Your task to perform on an android device: Show me popular videos on Youtube Image 0: 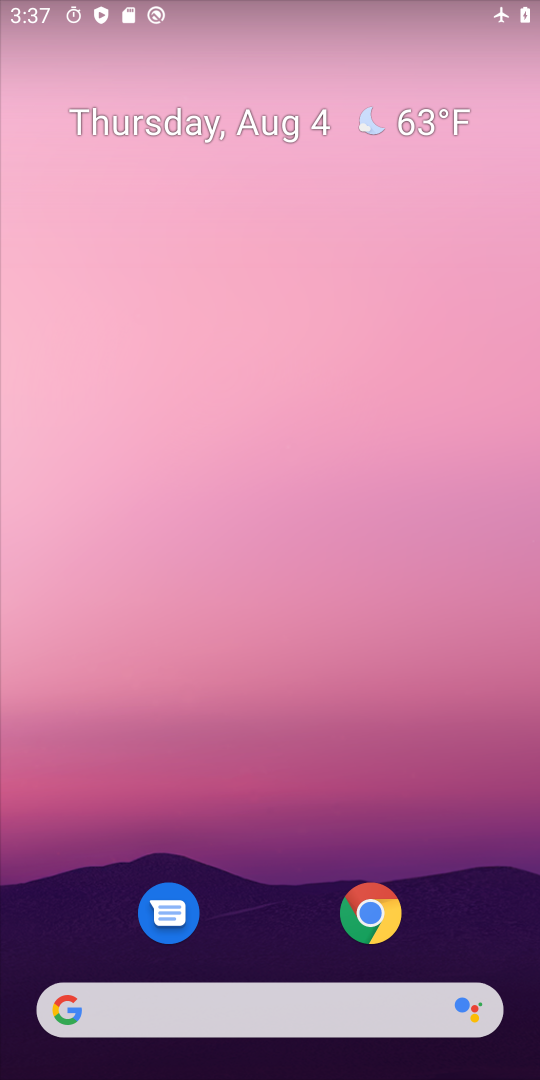
Step 0: drag from (313, 970) to (375, 32)
Your task to perform on an android device: Show me popular videos on Youtube Image 1: 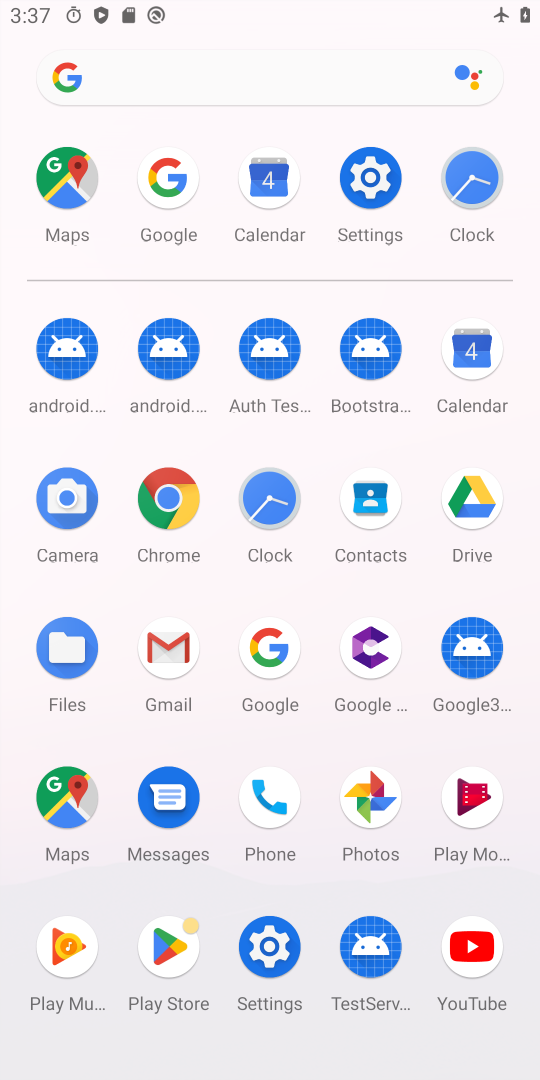
Step 1: click (467, 963)
Your task to perform on an android device: Show me popular videos on Youtube Image 2: 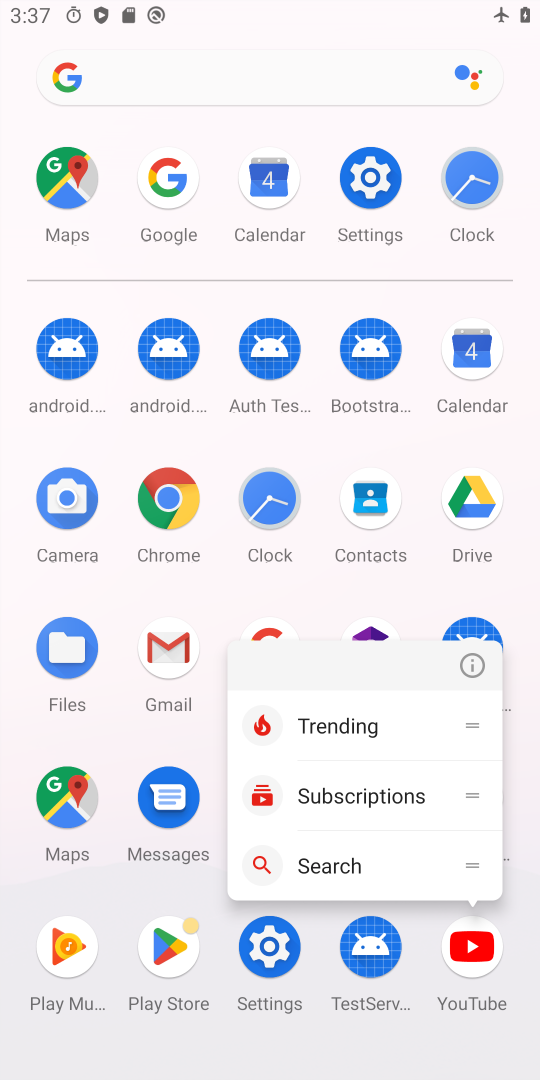
Step 2: click (492, 943)
Your task to perform on an android device: Show me popular videos on Youtube Image 3: 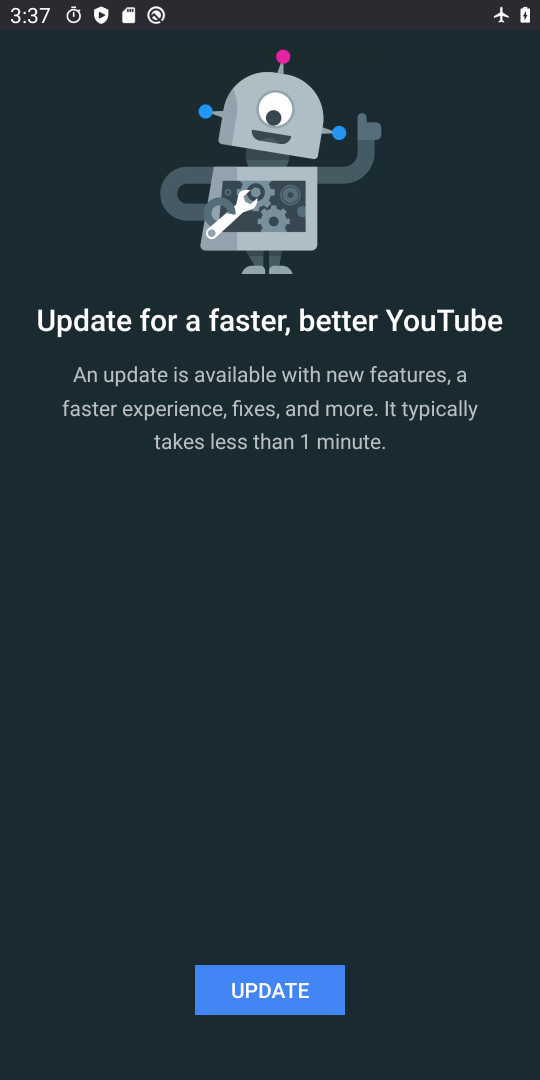
Step 3: click (320, 990)
Your task to perform on an android device: Show me popular videos on Youtube Image 4: 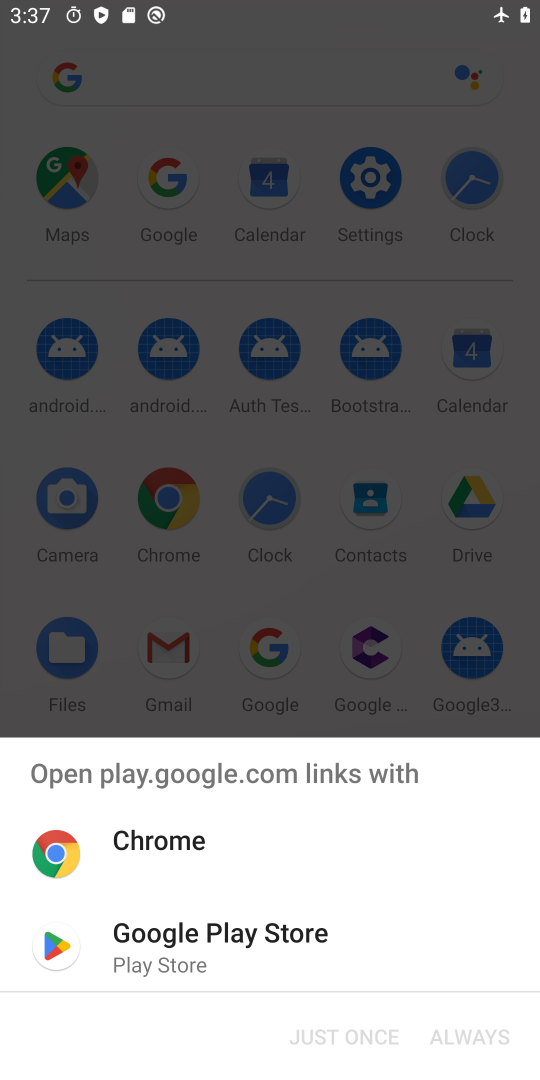
Step 4: click (242, 948)
Your task to perform on an android device: Show me popular videos on Youtube Image 5: 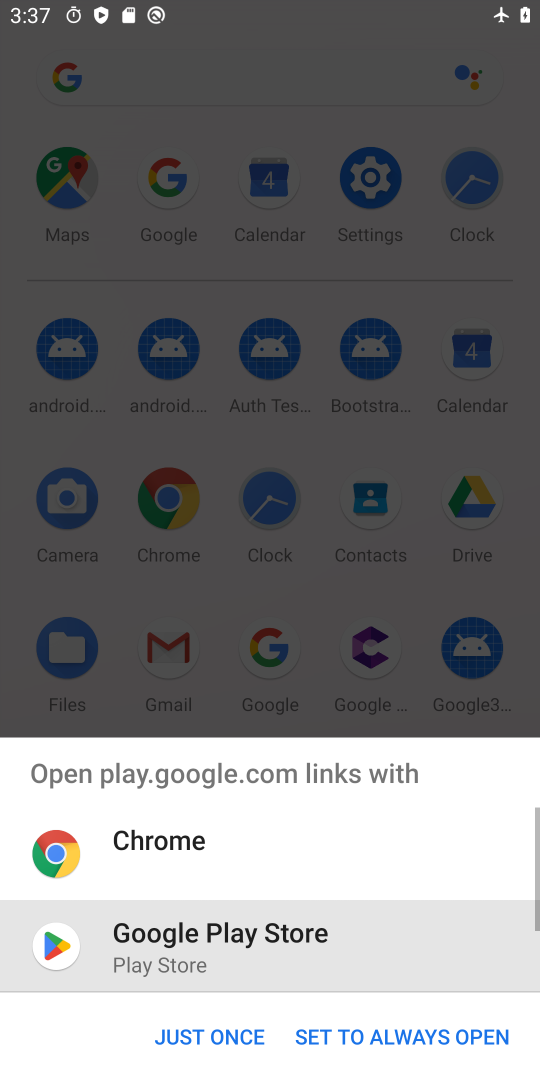
Step 5: click (238, 1029)
Your task to perform on an android device: Show me popular videos on Youtube Image 6: 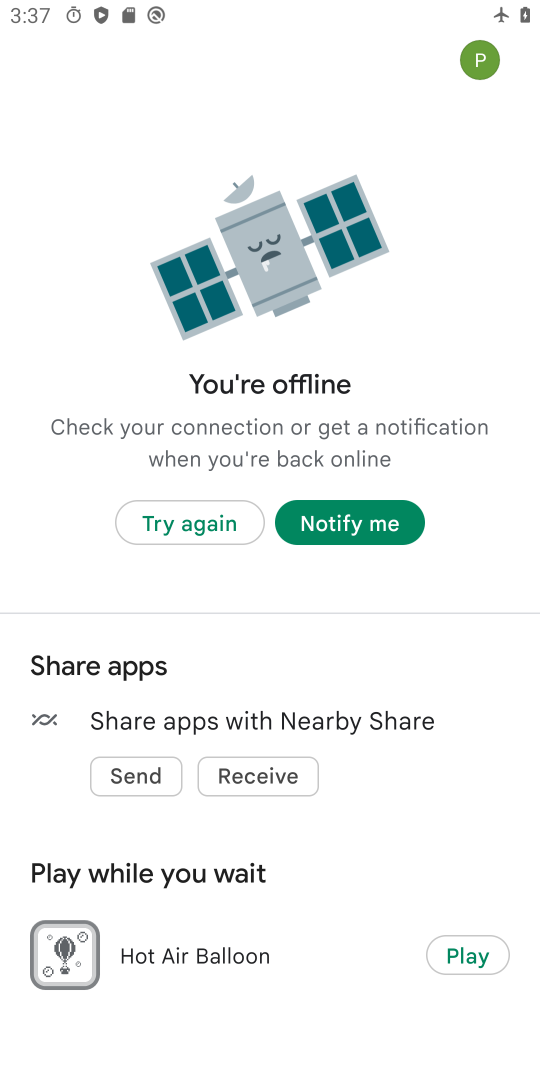
Step 6: task complete